Your task to perform on an android device: Open sound settings Image 0: 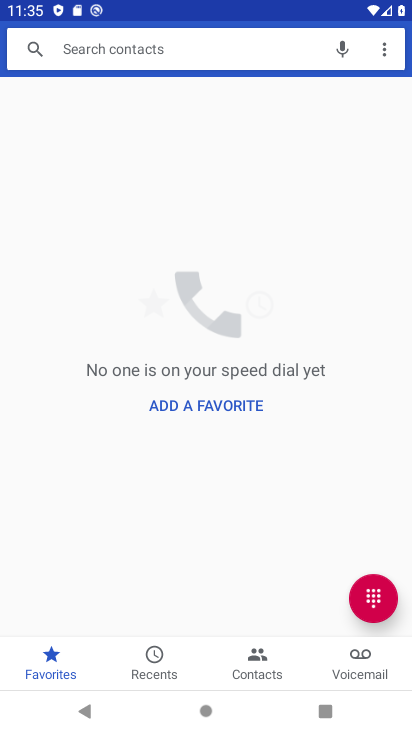
Step 0: press home button
Your task to perform on an android device: Open sound settings Image 1: 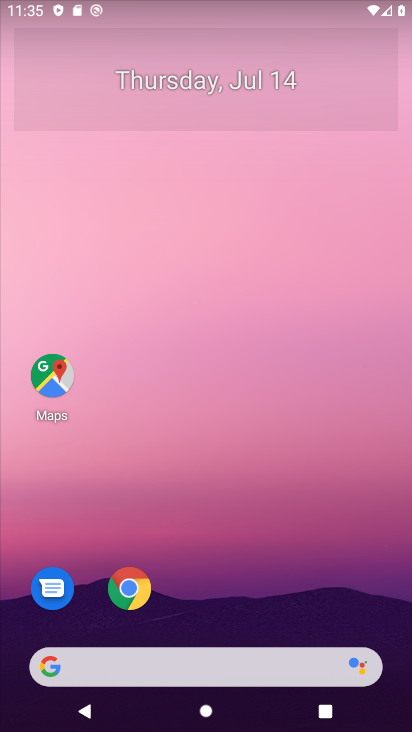
Step 1: drag from (149, 712) to (182, 40)
Your task to perform on an android device: Open sound settings Image 2: 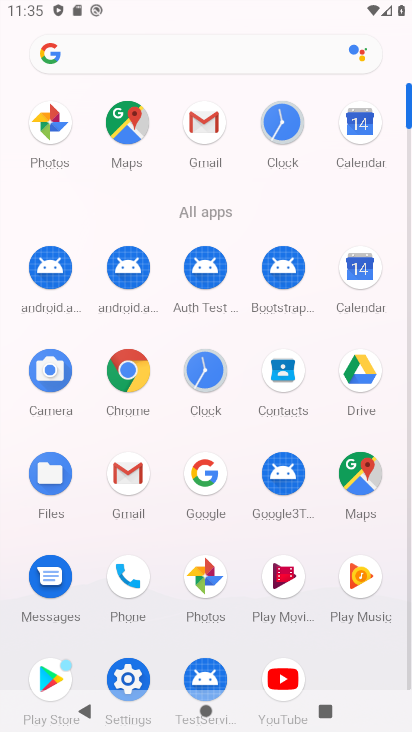
Step 2: click (131, 672)
Your task to perform on an android device: Open sound settings Image 3: 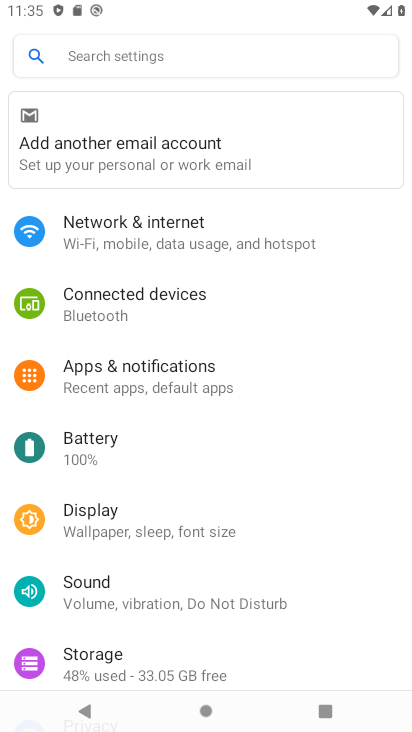
Step 3: click (198, 608)
Your task to perform on an android device: Open sound settings Image 4: 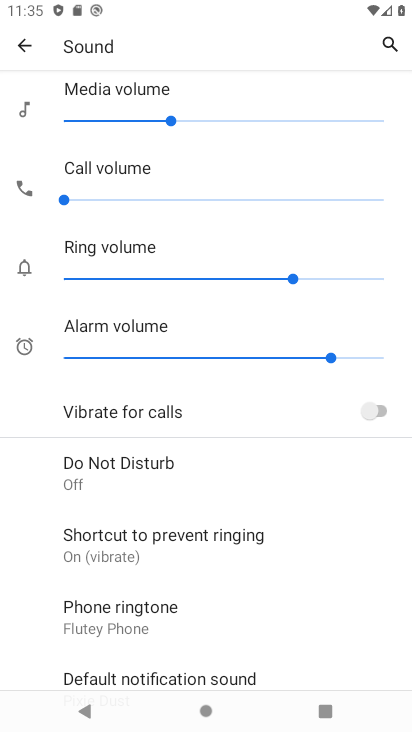
Step 4: task complete